Your task to perform on an android device: Open Yahoo.com Image 0: 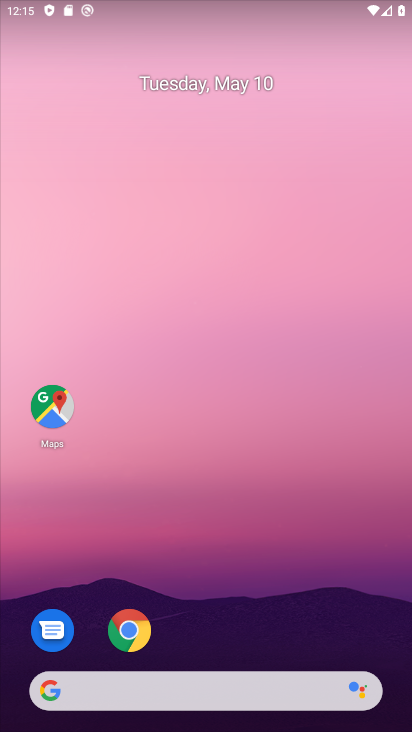
Step 0: click (126, 634)
Your task to perform on an android device: Open Yahoo.com Image 1: 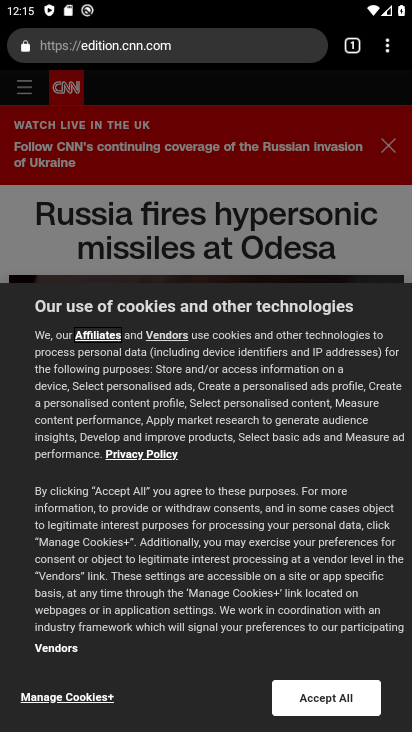
Step 1: click (388, 54)
Your task to perform on an android device: Open Yahoo.com Image 2: 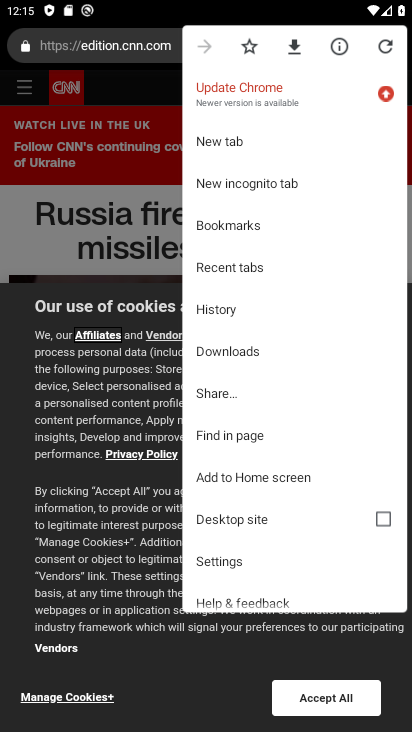
Step 2: click (216, 142)
Your task to perform on an android device: Open Yahoo.com Image 3: 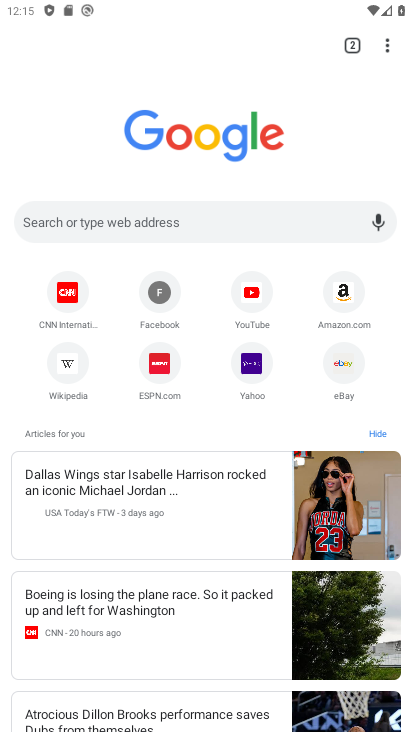
Step 3: click (172, 220)
Your task to perform on an android device: Open Yahoo.com Image 4: 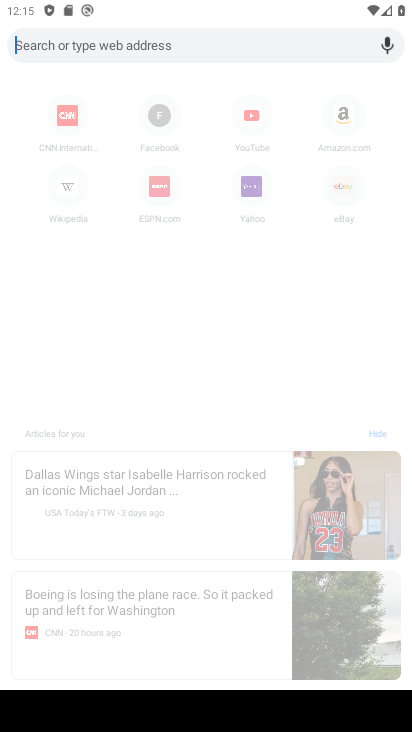
Step 4: type "Yahoo.com"
Your task to perform on an android device: Open Yahoo.com Image 5: 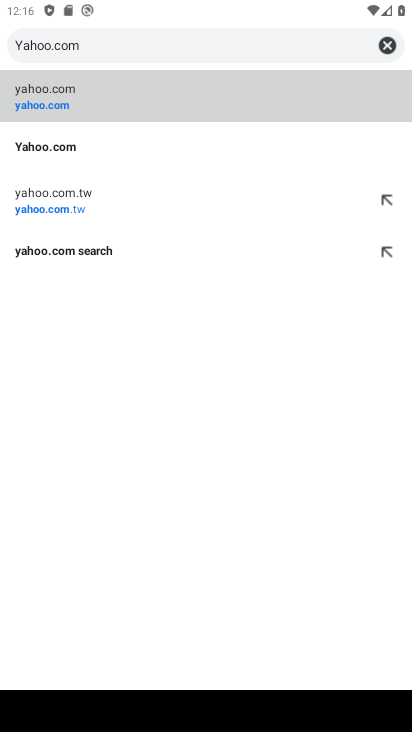
Step 5: click (46, 96)
Your task to perform on an android device: Open Yahoo.com Image 6: 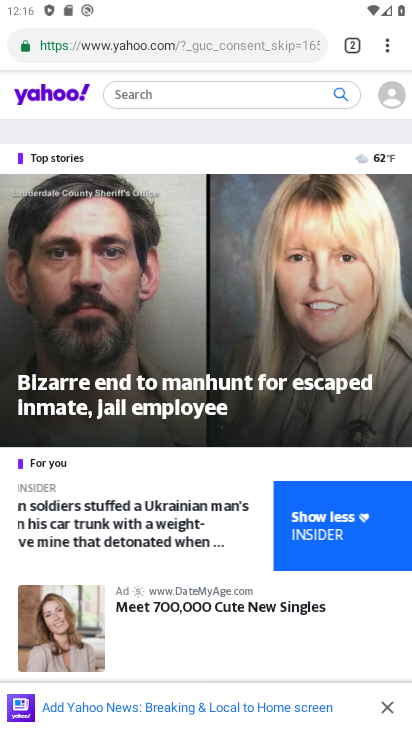
Step 6: task complete